Your task to perform on an android device: turn vacation reply on in the gmail app Image 0: 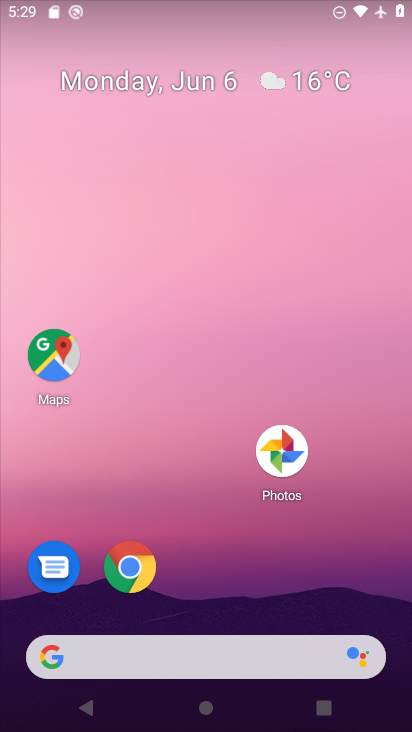
Step 0: drag from (293, 667) to (212, 112)
Your task to perform on an android device: turn vacation reply on in the gmail app Image 1: 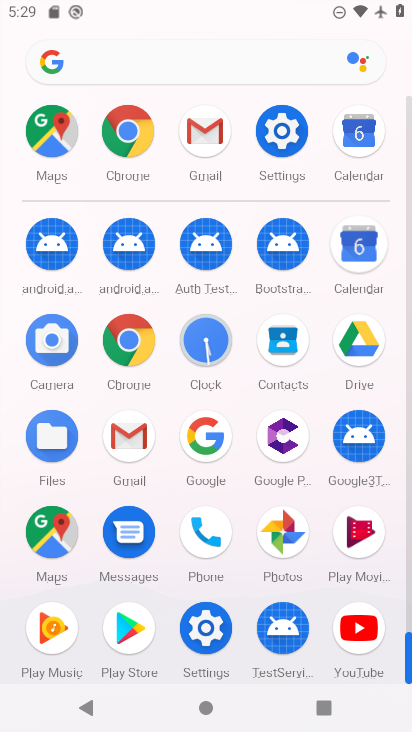
Step 1: click (143, 437)
Your task to perform on an android device: turn vacation reply on in the gmail app Image 2: 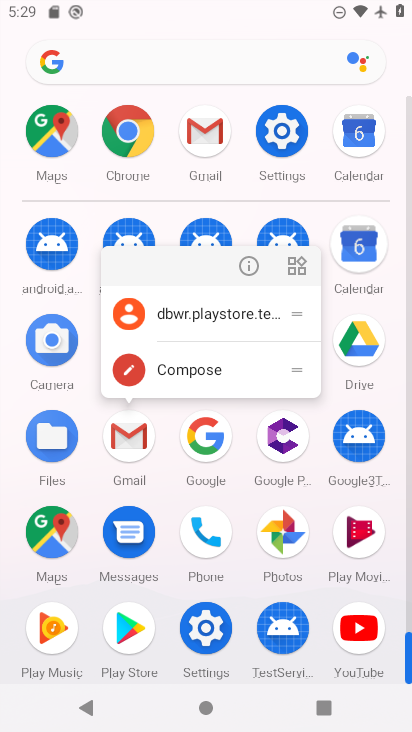
Step 2: click (129, 434)
Your task to perform on an android device: turn vacation reply on in the gmail app Image 3: 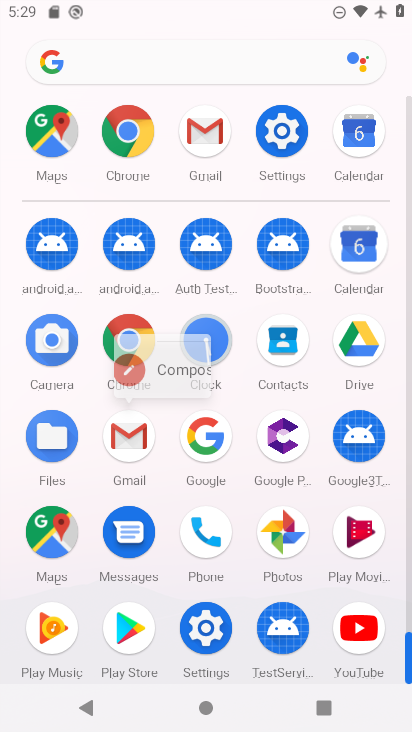
Step 3: click (129, 434)
Your task to perform on an android device: turn vacation reply on in the gmail app Image 4: 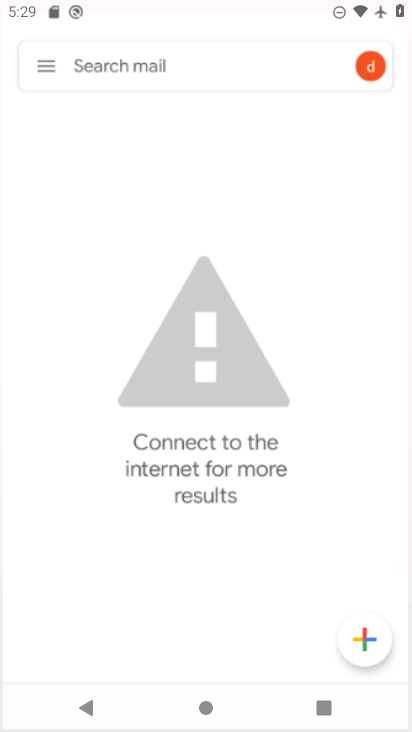
Step 4: click (134, 437)
Your task to perform on an android device: turn vacation reply on in the gmail app Image 5: 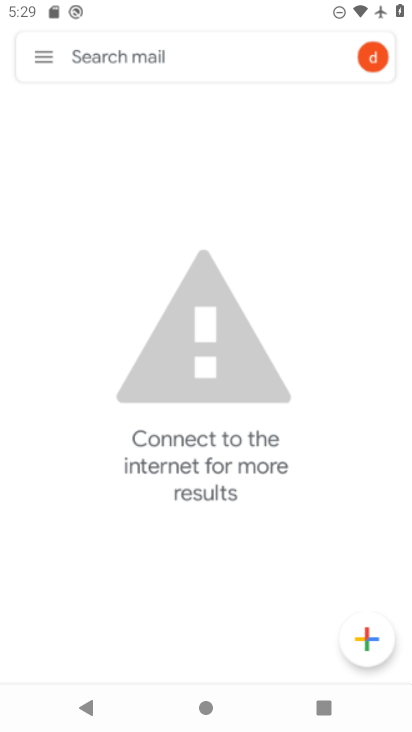
Step 5: click (134, 437)
Your task to perform on an android device: turn vacation reply on in the gmail app Image 6: 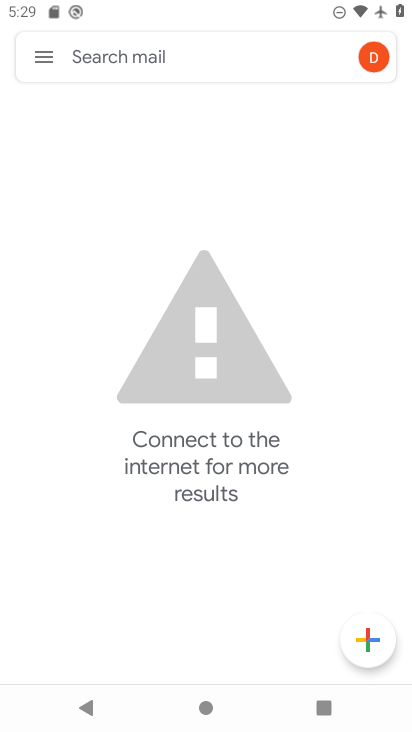
Step 6: click (134, 437)
Your task to perform on an android device: turn vacation reply on in the gmail app Image 7: 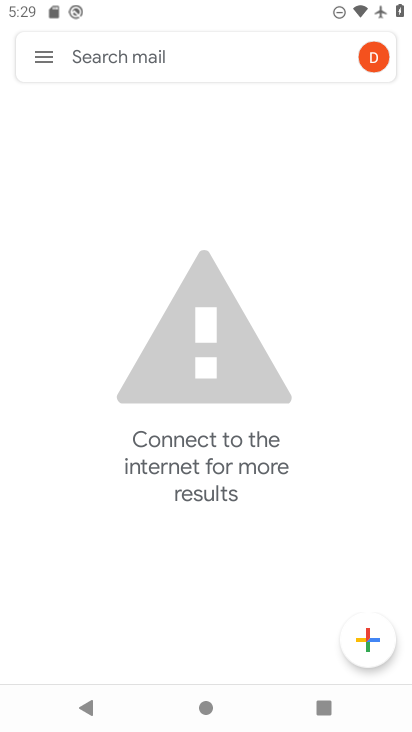
Step 7: click (134, 437)
Your task to perform on an android device: turn vacation reply on in the gmail app Image 8: 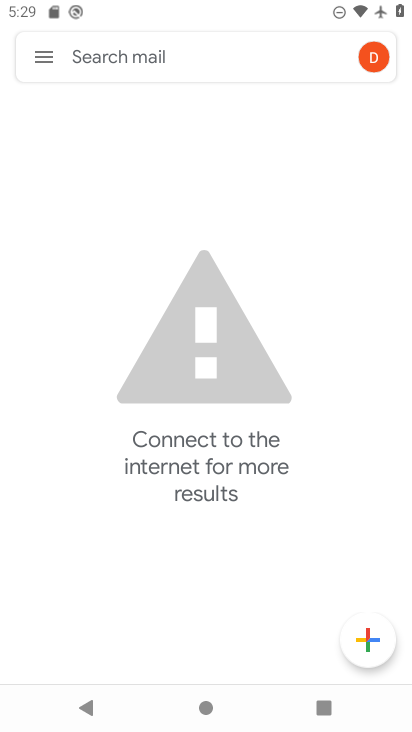
Step 8: click (134, 437)
Your task to perform on an android device: turn vacation reply on in the gmail app Image 9: 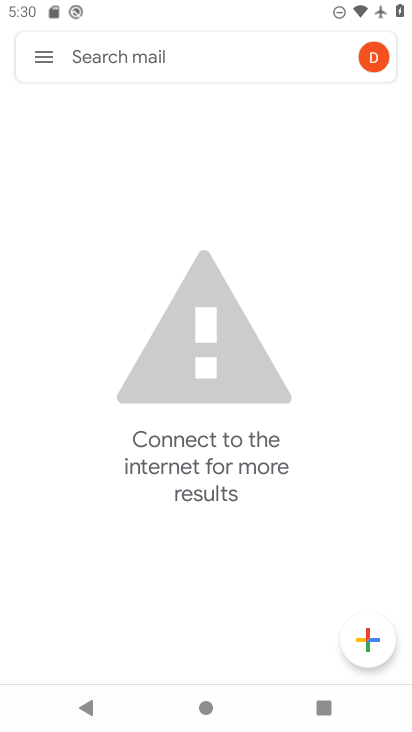
Step 9: click (35, 35)
Your task to perform on an android device: turn vacation reply on in the gmail app Image 10: 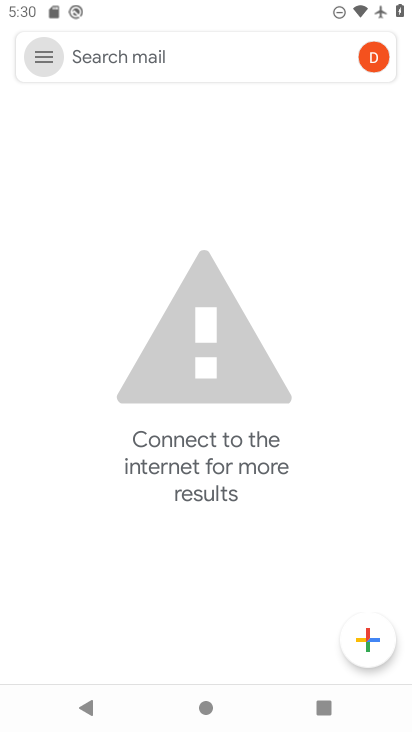
Step 10: click (43, 49)
Your task to perform on an android device: turn vacation reply on in the gmail app Image 11: 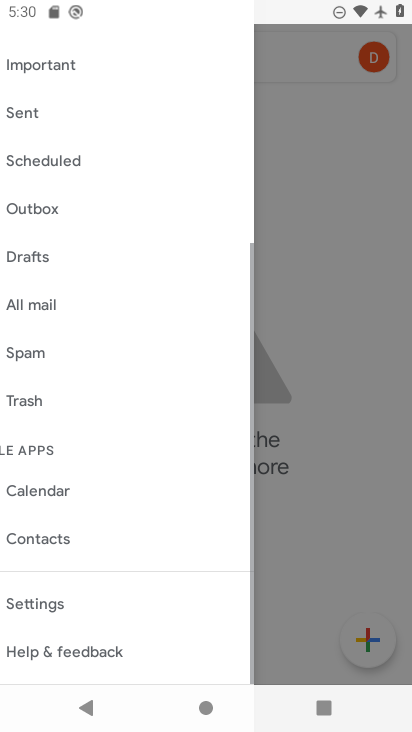
Step 11: click (43, 49)
Your task to perform on an android device: turn vacation reply on in the gmail app Image 12: 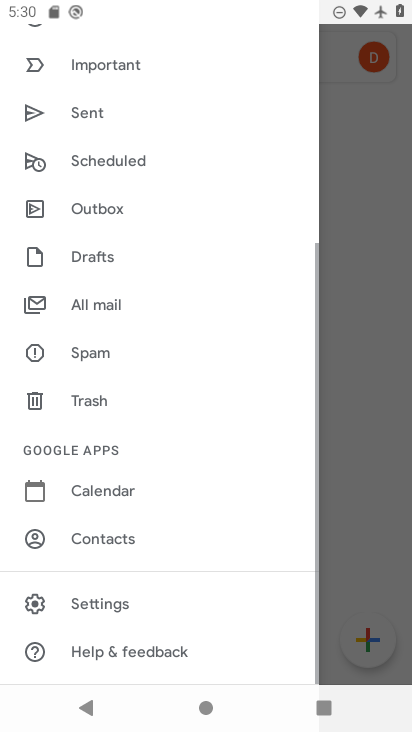
Step 12: click (39, 54)
Your task to perform on an android device: turn vacation reply on in the gmail app Image 13: 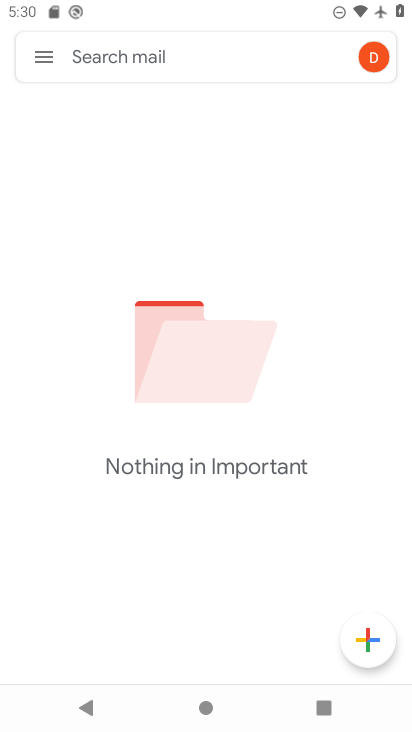
Step 13: click (30, 58)
Your task to perform on an android device: turn vacation reply on in the gmail app Image 14: 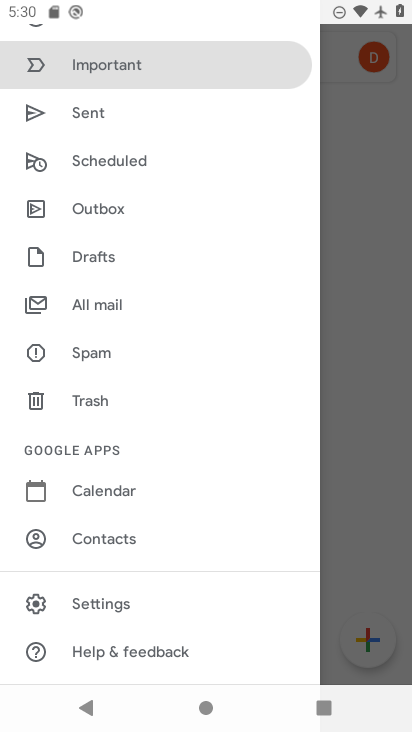
Step 14: click (96, 598)
Your task to perform on an android device: turn vacation reply on in the gmail app Image 15: 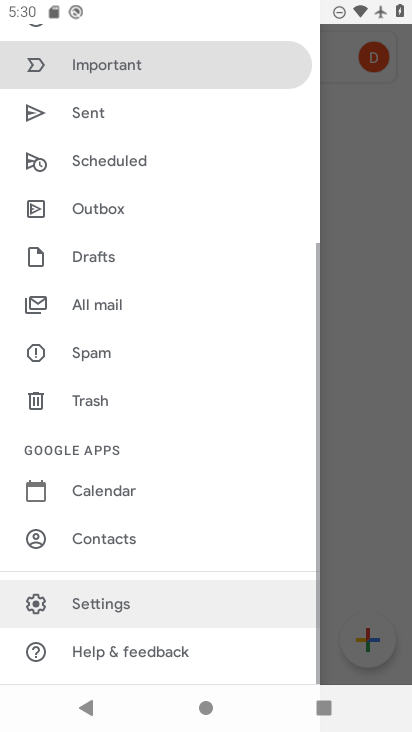
Step 15: click (96, 598)
Your task to perform on an android device: turn vacation reply on in the gmail app Image 16: 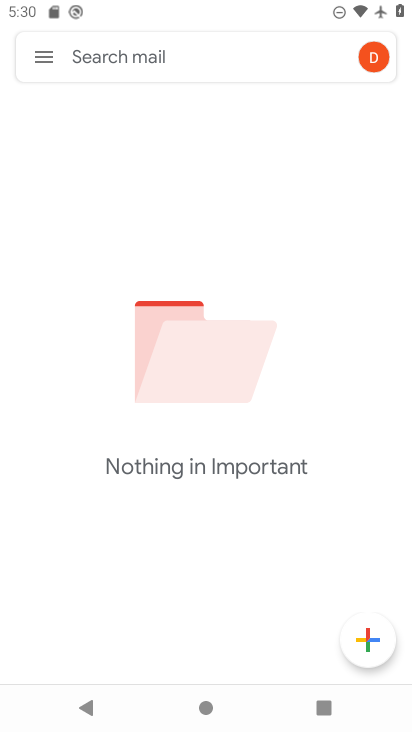
Step 16: click (99, 599)
Your task to perform on an android device: turn vacation reply on in the gmail app Image 17: 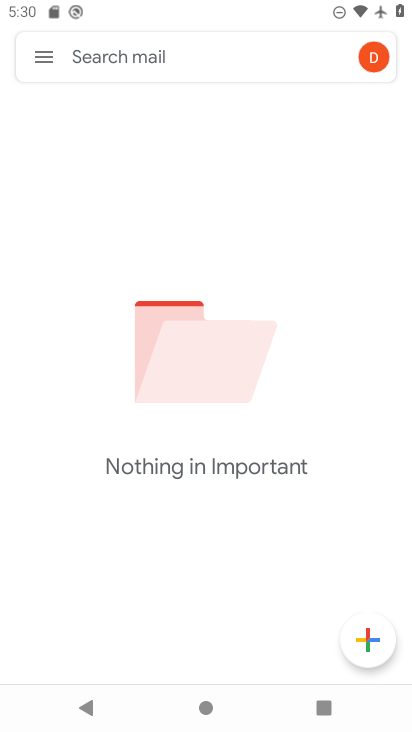
Step 17: click (100, 599)
Your task to perform on an android device: turn vacation reply on in the gmail app Image 18: 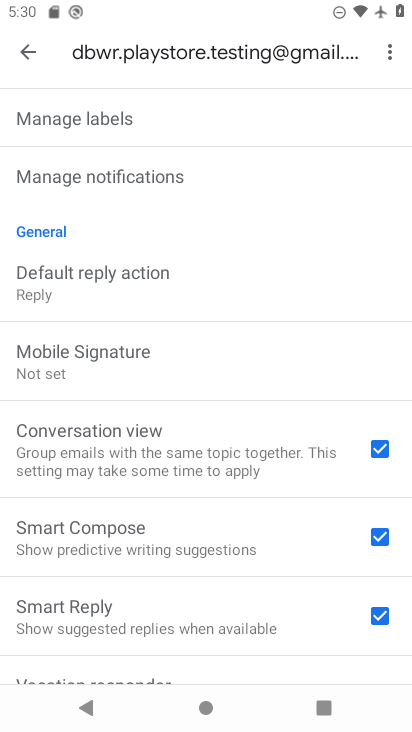
Step 18: task complete